Your task to perform on an android device: install app "Grab" Image 0: 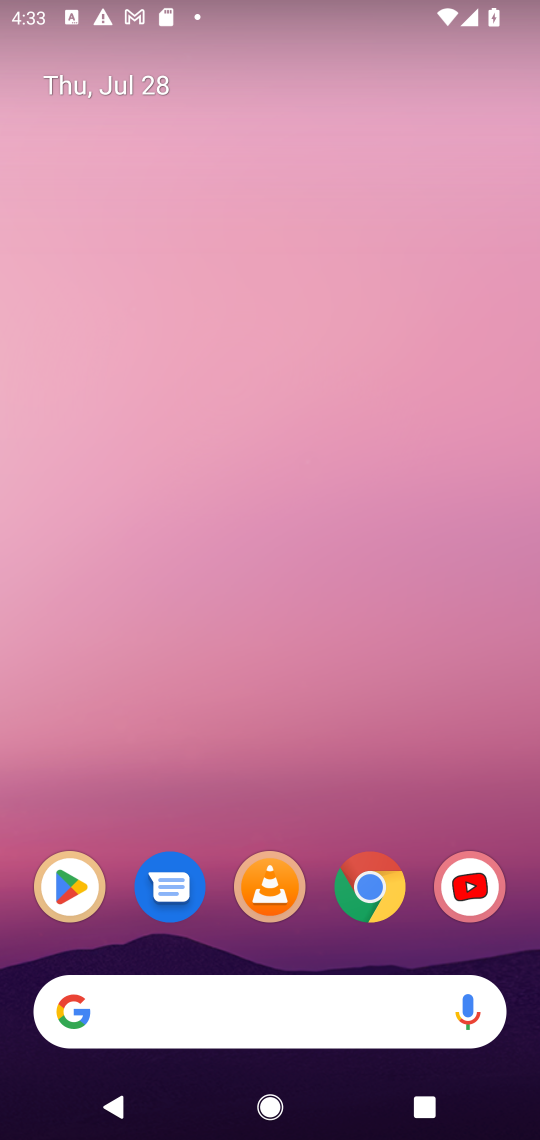
Step 0: click (77, 891)
Your task to perform on an android device: install app "Grab" Image 1: 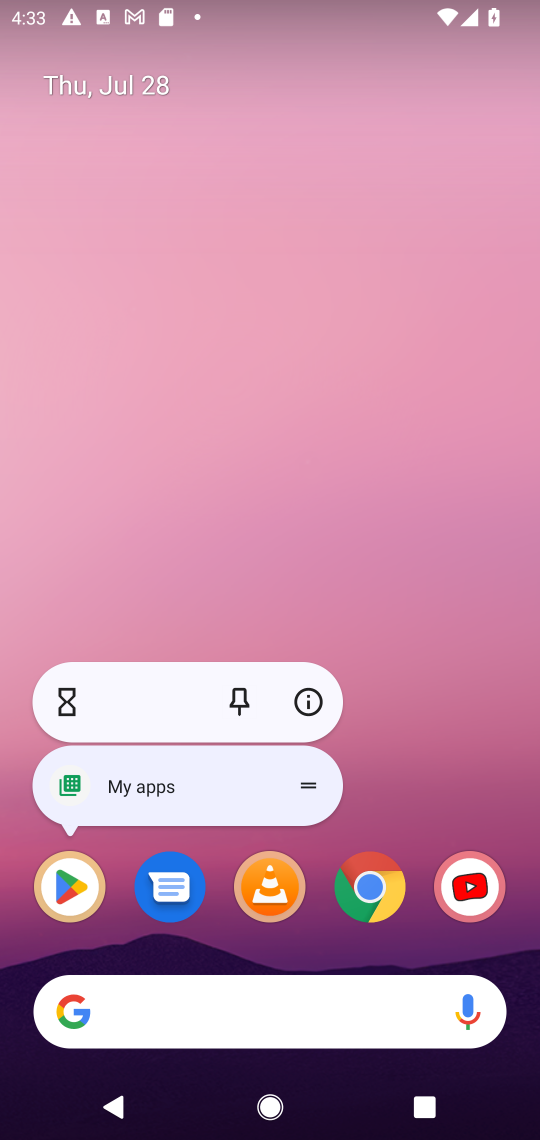
Step 1: click (75, 901)
Your task to perform on an android device: install app "Grab" Image 2: 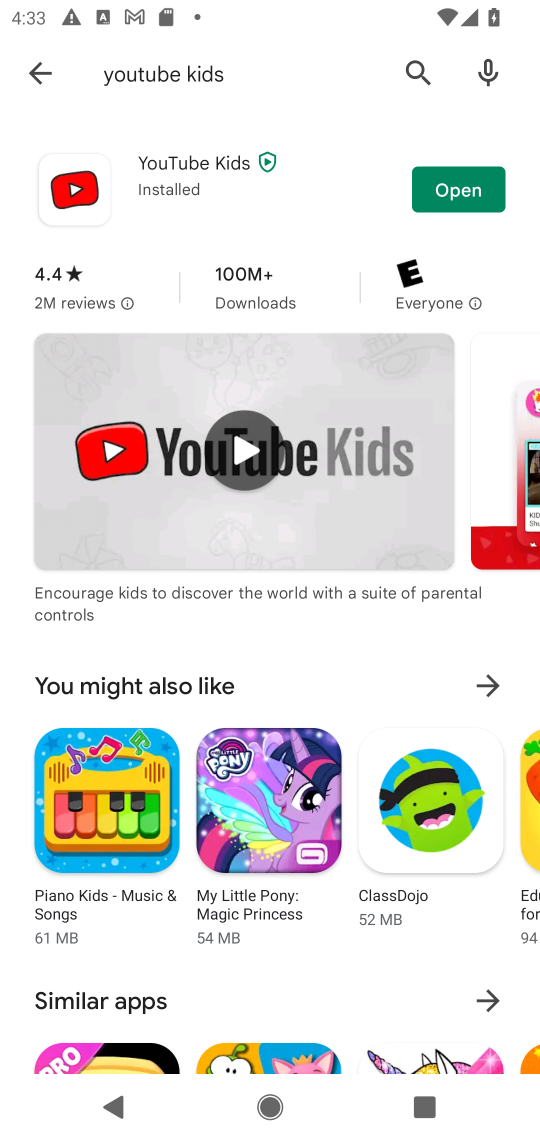
Step 2: click (161, 70)
Your task to perform on an android device: install app "Grab" Image 3: 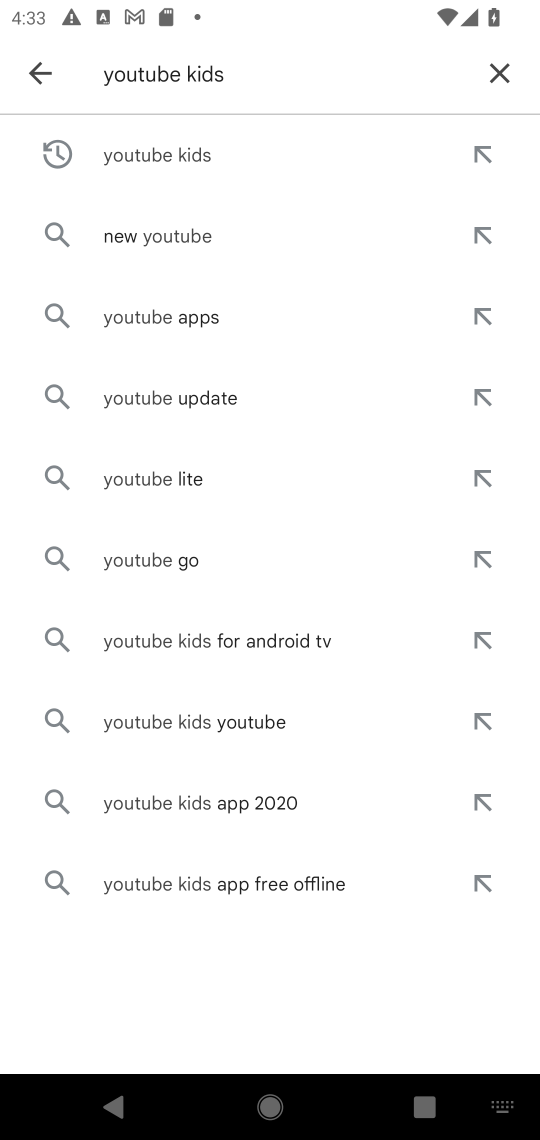
Step 3: click (505, 74)
Your task to perform on an android device: install app "Grab" Image 4: 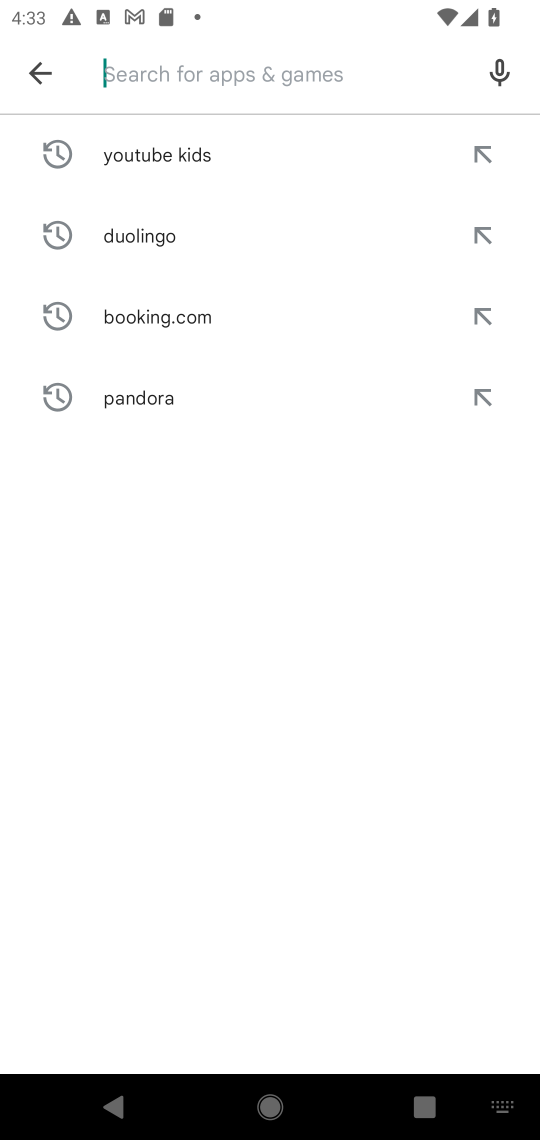
Step 4: type "Grab"
Your task to perform on an android device: install app "Grab" Image 5: 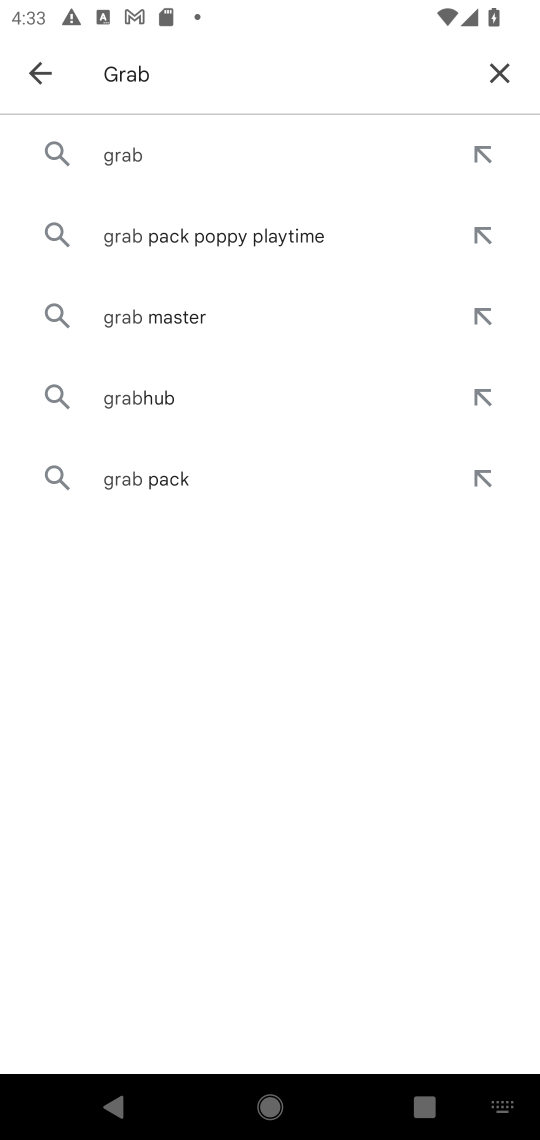
Step 5: click (197, 169)
Your task to perform on an android device: install app "Grab" Image 6: 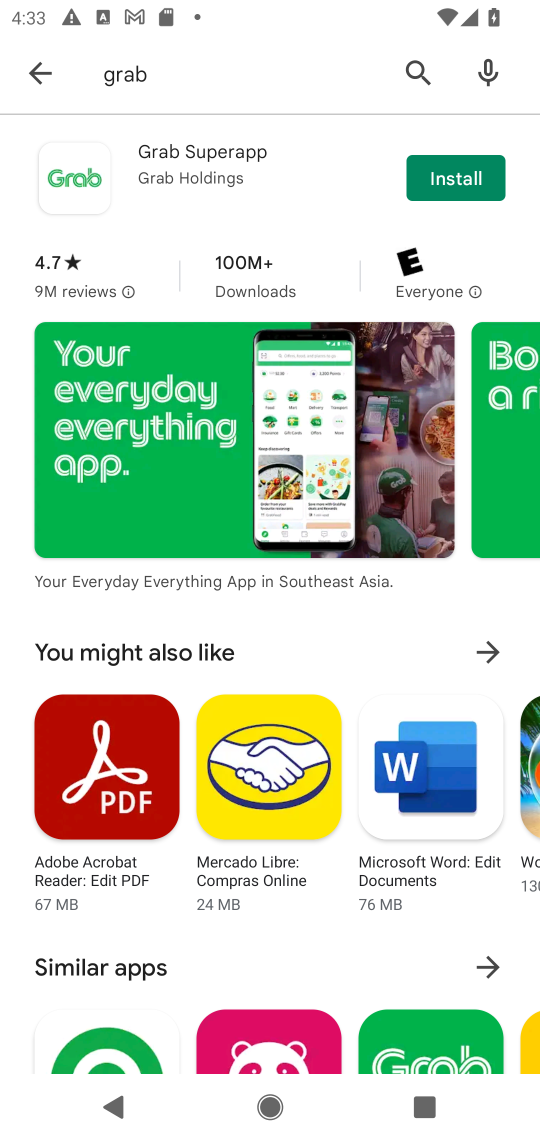
Step 6: click (463, 184)
Your task to perform on an android device: install app "Grab" Image 7: 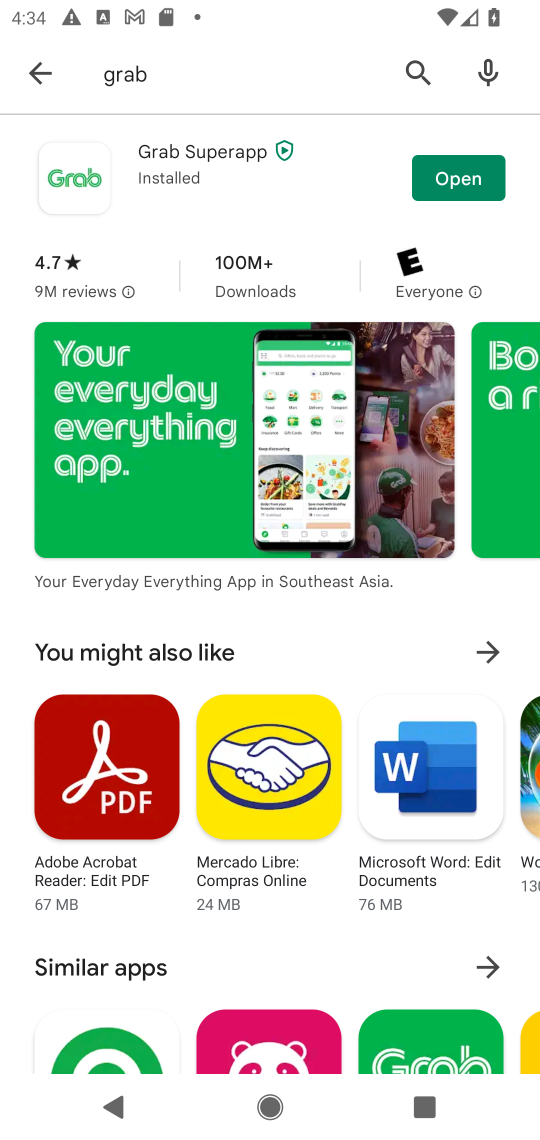
Step 7: task complete